Your task to perform on an android device: turn notification dots on Image 0: 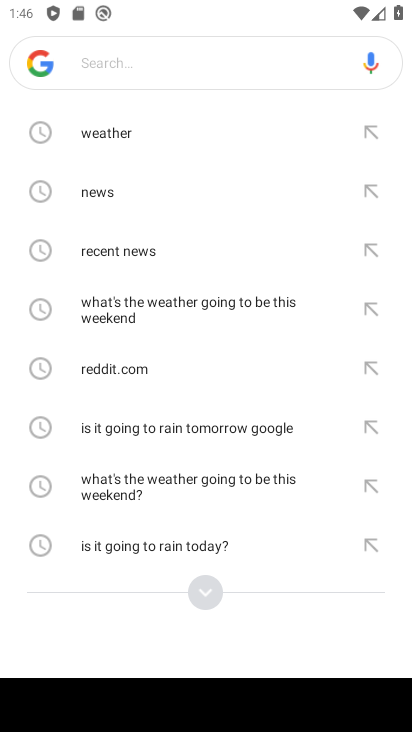
Step 0: press home button
Your task to perform on an android device: turn notification dots on Image 1: 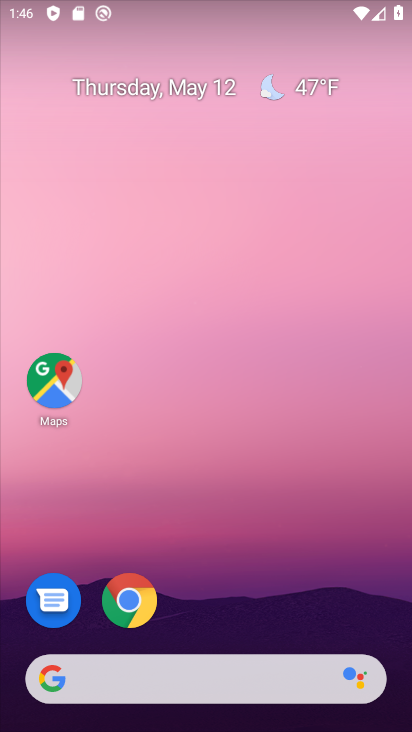
Step 1: drag from (197, 511) to (227, 15)
Your task to perform on an android device: turn notification dots on Image 2: 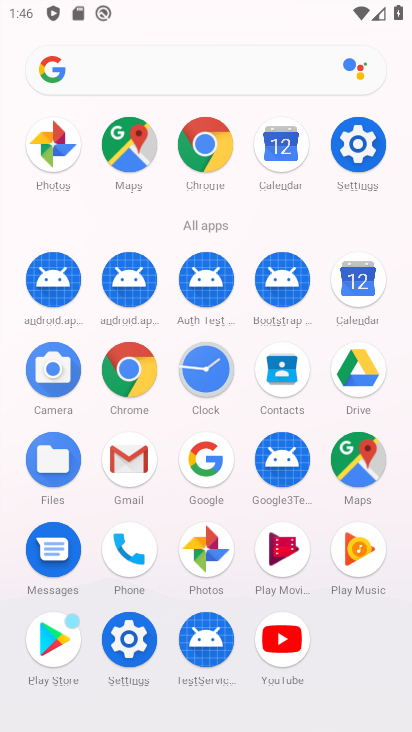
Step 2: click (360, 144)
Your task to perform on an android device: turn notification dots on Image 3: 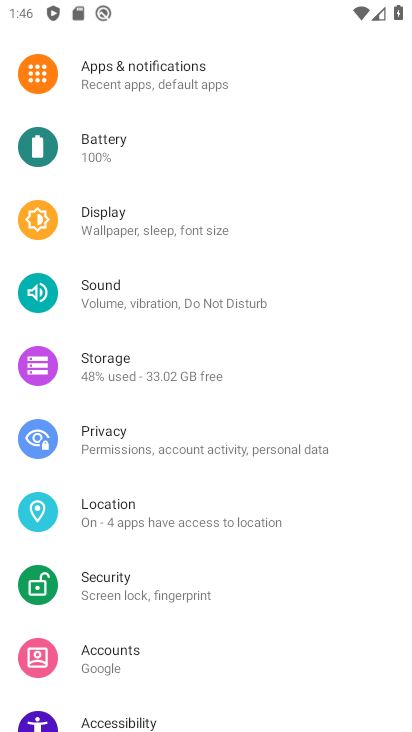
Step 3: click (184, 84)
Your task to perform on an android device: turn notification dots on Image 4: 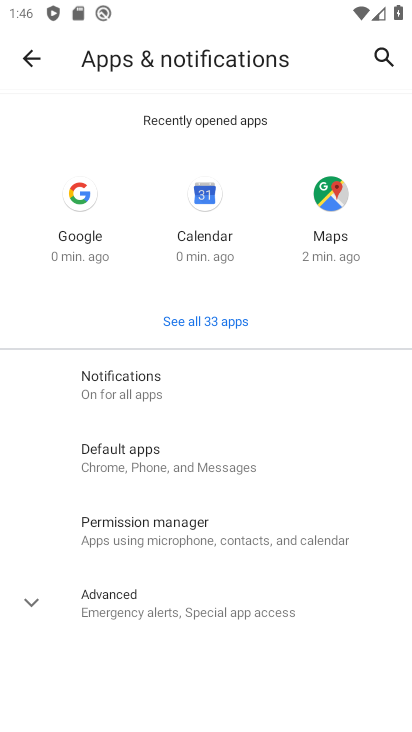
Step 4: click (165, 392)
Your task to perform on an android device: turn notification dots on Image 5: 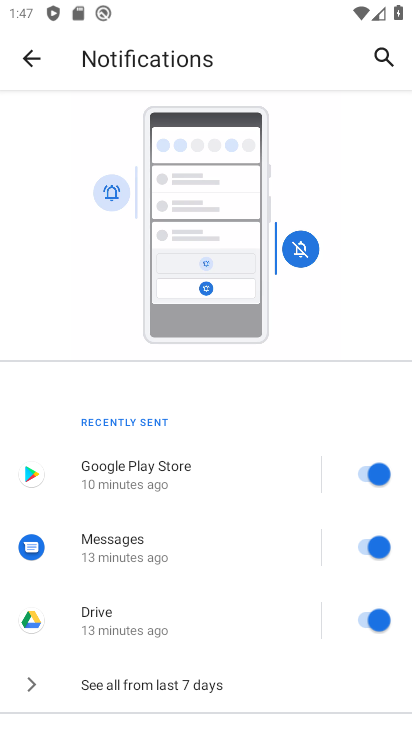
Step 5: drag from (172, 622) to (189, 244)
Your task to perform on an android device: turn notification dots on Image 6: 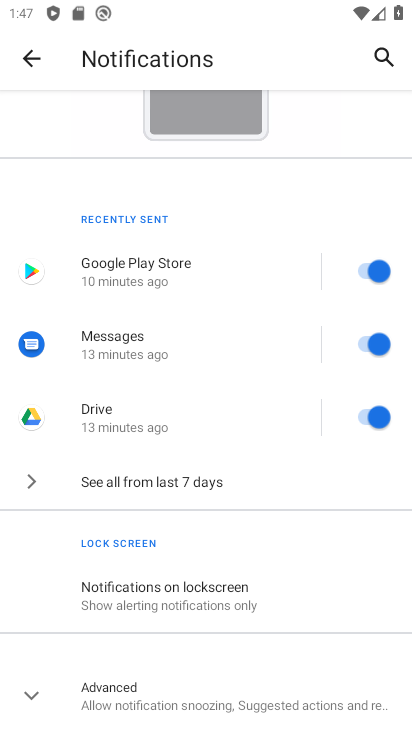
Step 6: click (134, 696)
Your task to perform on an android device: turn notification dots on Image 7: 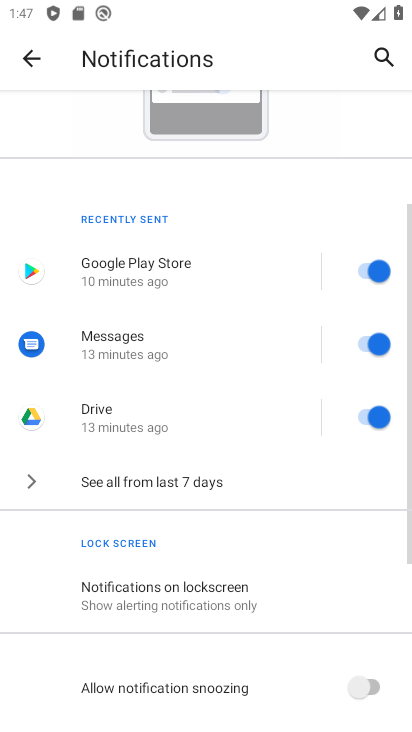
Step 7: task complete